Your task to perform on an android device: Open ESPN.com Image 0: 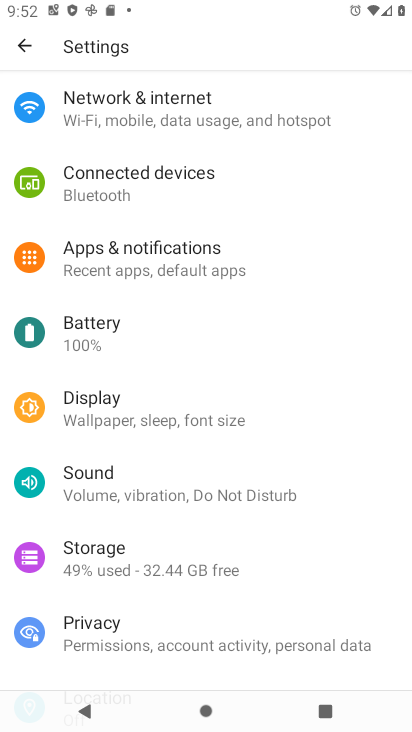
Step 0: press home button
Your task to perform on an android device: Open ESPN.com Image 1: 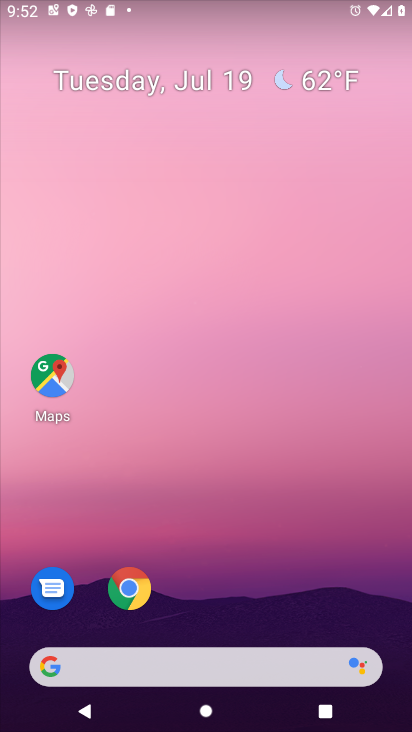
Step 1: drag from (244, 573) to (263, 37)
Your task to perform on an android device: Open ESPN.com Image 2: 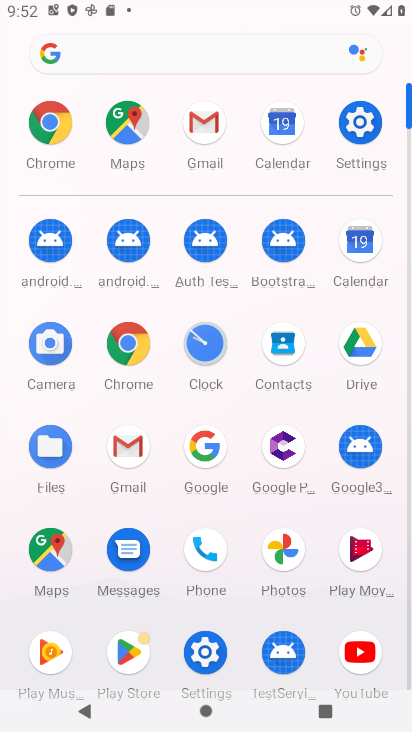
Step 2: click (57, 138)
Your task to perform on an android device: Open ESPN.com Image 3: 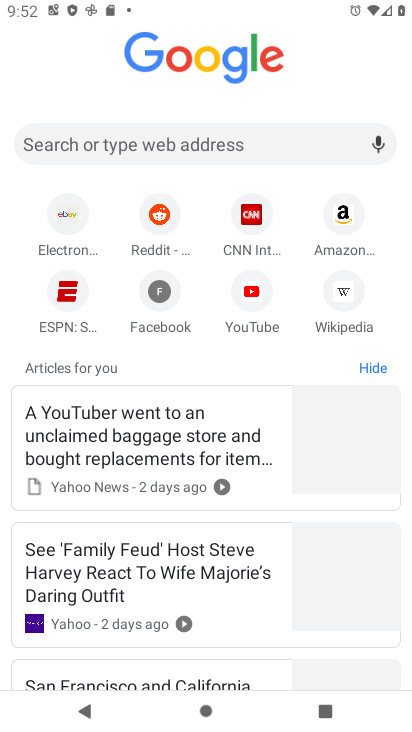
Step 3: click (63, 315)
Your task to perform on an android device: Open ESPN.com Image 4: 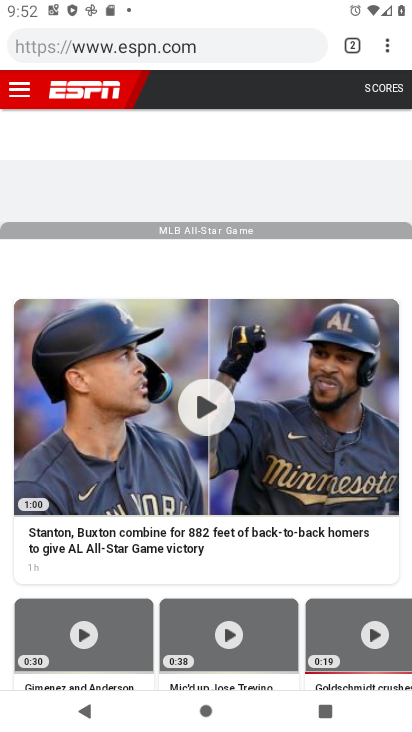
Step 4: task complete